Your task to perform on an android device: turn off notifications settings in the gmail app Image 0: 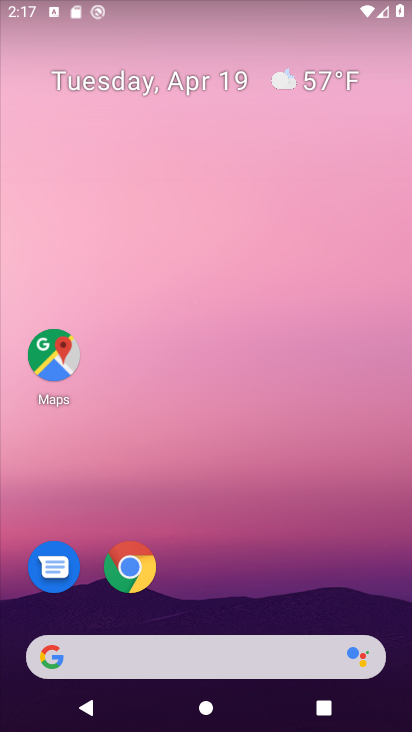
Step 0: drag from (345, 599) to (306, 218)
Your task to perform on an android device: turn off notifications settings in the gmail app Image 1: 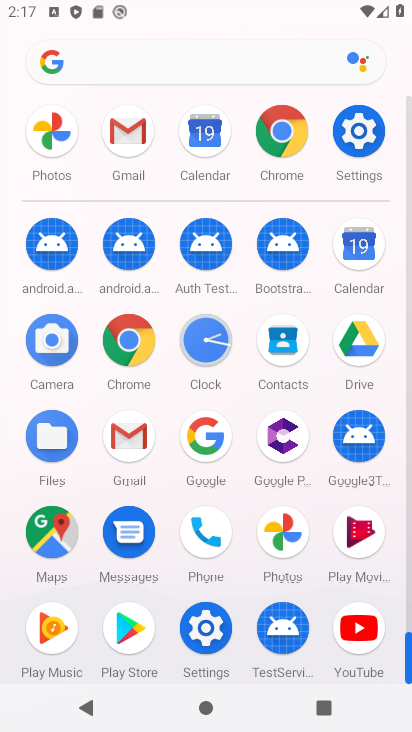
Step 1: click (127, 431)
Your task to perform on an android device: turn off notifications settings in the gmail app Image 2: 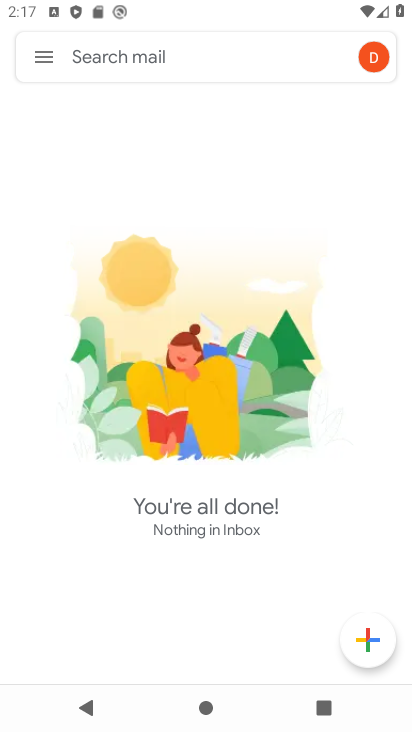
Step 2: click (40, 53)
Your task to perform on an android device: turn off notifications settings in the gmail app Image 3: 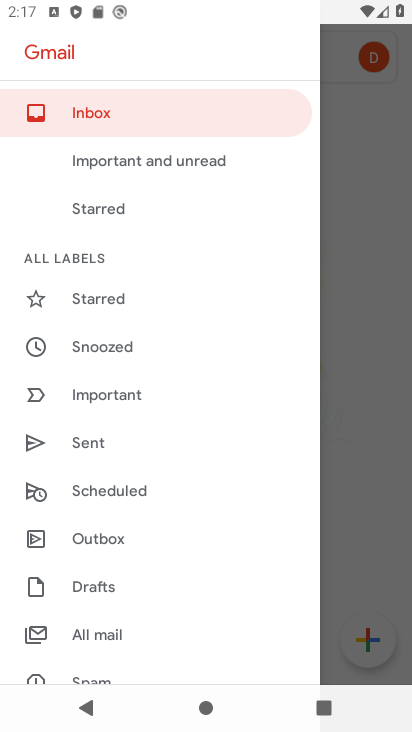
Step 3: drag from (186, 625) to (248, 226)
Your task to perform on an android device: turn off notifications settings in the gmail app Image 4: 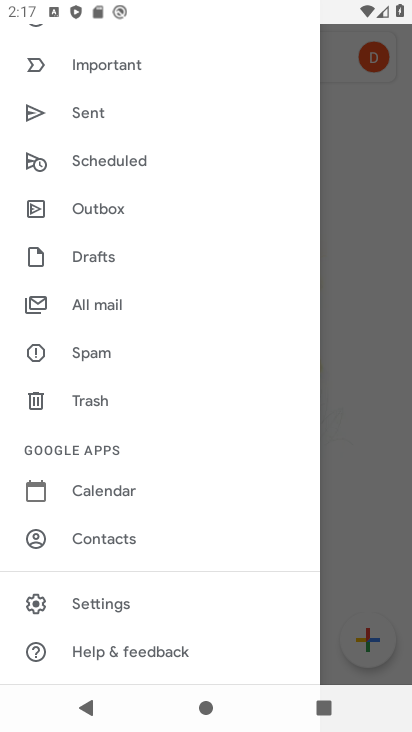
Step 4: click (87, 604)
Your task to perform on an android device: turn off notifications settings in the gmail app Image 5: 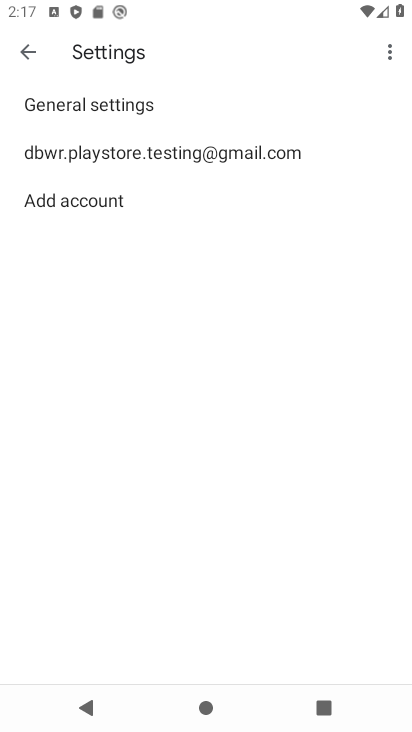
Step 5: click (165, 157)
Your task to perform on an android device: turn off notifications settings in the gmail app Image 6: 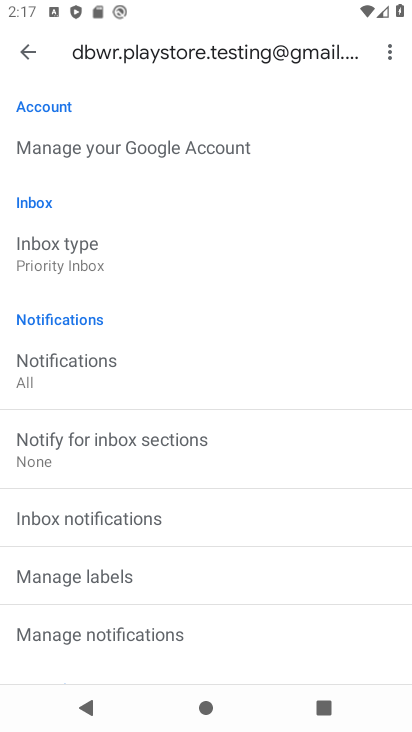
Step 6: drag from (225, 373) to (241, 302)
Your task to perform on an android device: turn off notifications settings in the gmail app Image 7: 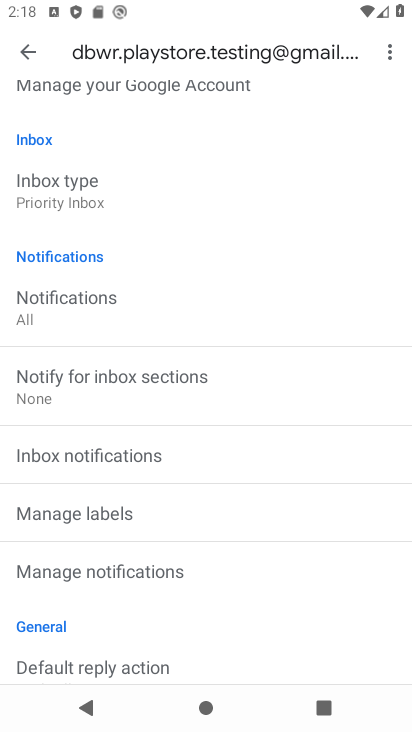
Step 7: click (96, 571)
Your task to perform on an android device: turn off notifications settings in the gmail app Image 8: 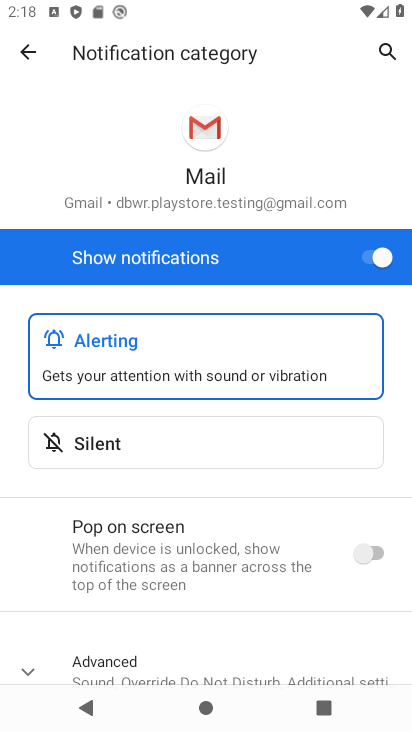
Step 8: click (363, 253)
Your task to perform on an android device: turn off notifications settings in the gmail app Image 9: 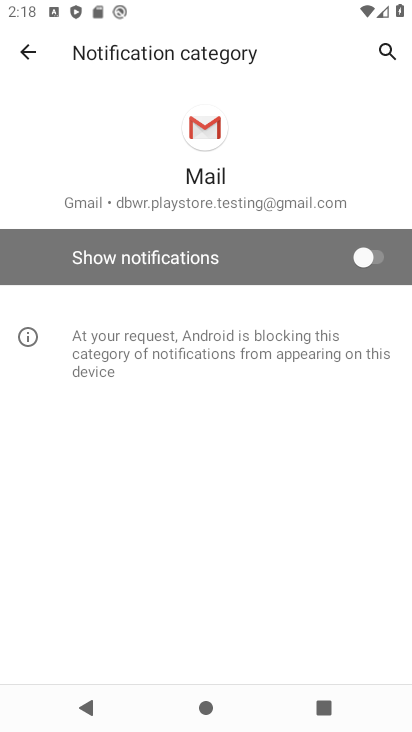
Step 9: task complete